Your task to perform on an android device: Show me recent news Image 0: 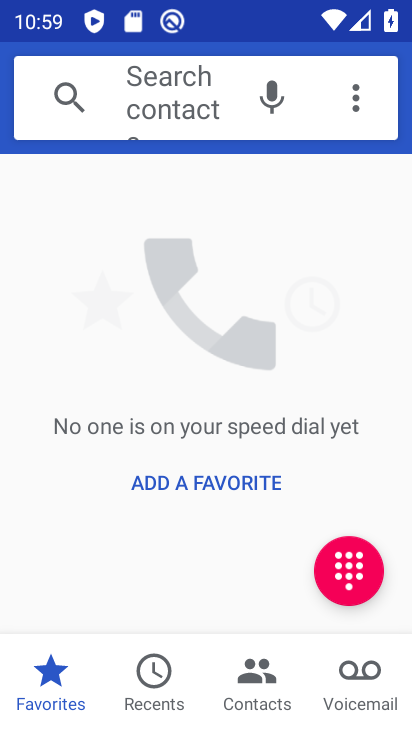
Step 0: press home button
Your task to perform on an android device: Show me recent news Image 1: 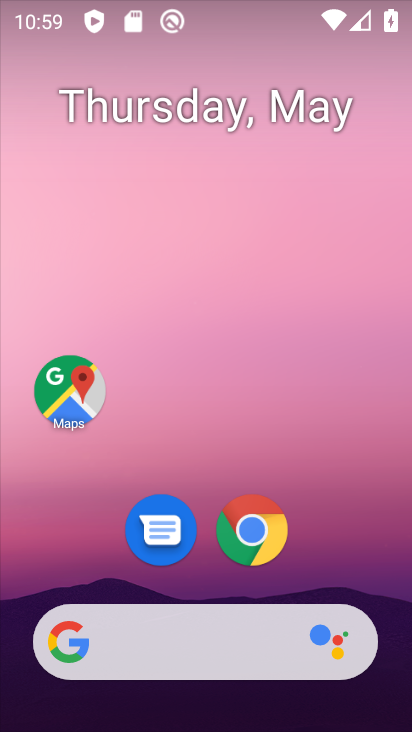
Step 1: task complete